Your task to perform on an android device: Open settings on Google Maps Image 0: 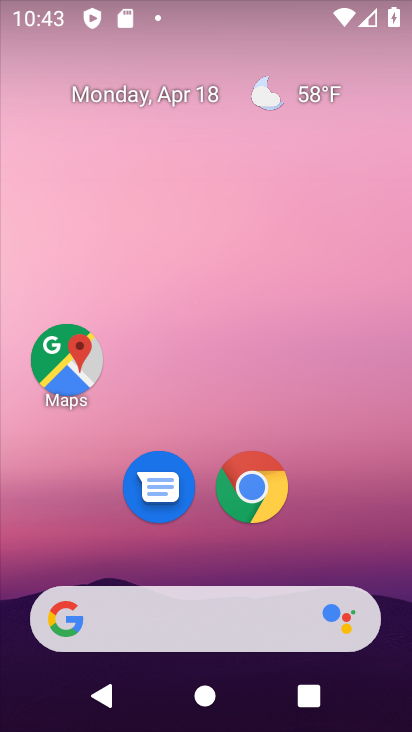
Step 0: drag from (344, 527) to (283, 434)
Your task to perform on an android device: Open settings on Google Maps Image 1: 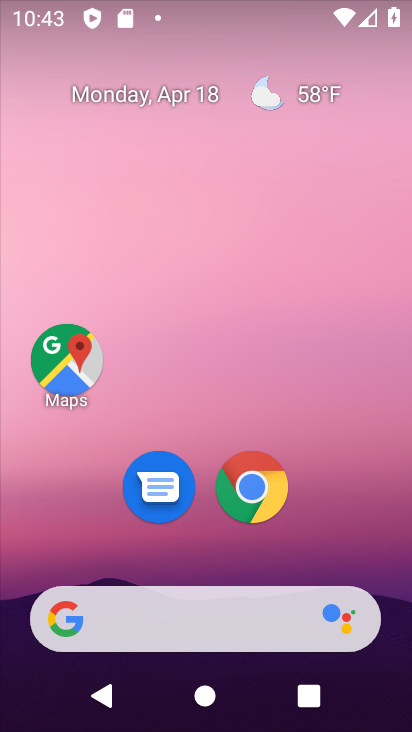
Step 1: click (66, 343)
Your task to perform on an android device: Open settings on Google Maps Image 2: 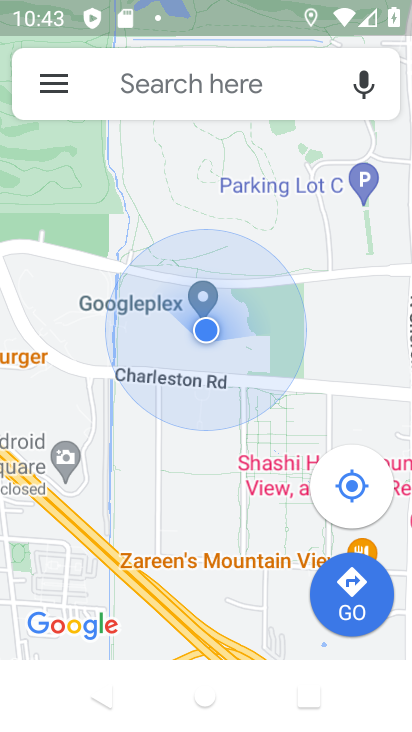
Step 2: click (63, 78)
Your task to perform on an android device: Open settings on Google Maps Image 3: 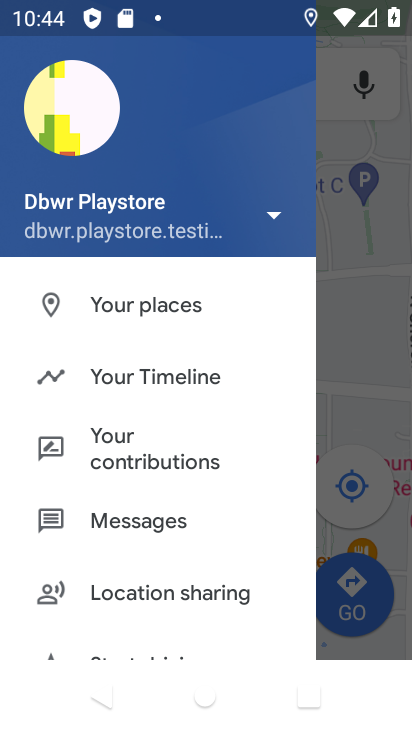
Step 3: drag from (187, 300) to (190, 113)
Your task to perform on an android device: Open settings on Google Maps Image 4: 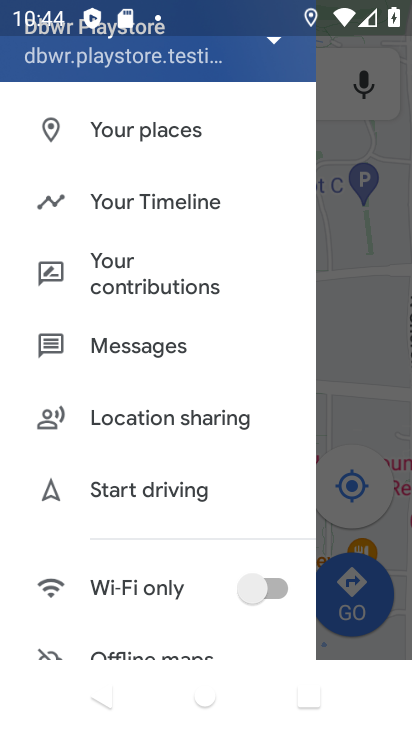
Step 4: drag from (168, 539) to (175, 185)
Your task to perform on an android device: Open settings on Google Maps Image 5: 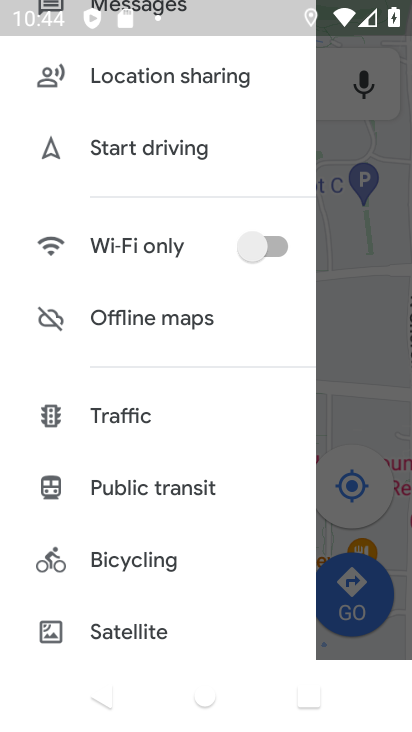
Step 5: drag from (154, 539) to (176, 107)
Your task to perform on an android device: Open settings on Google Maps Image 6: 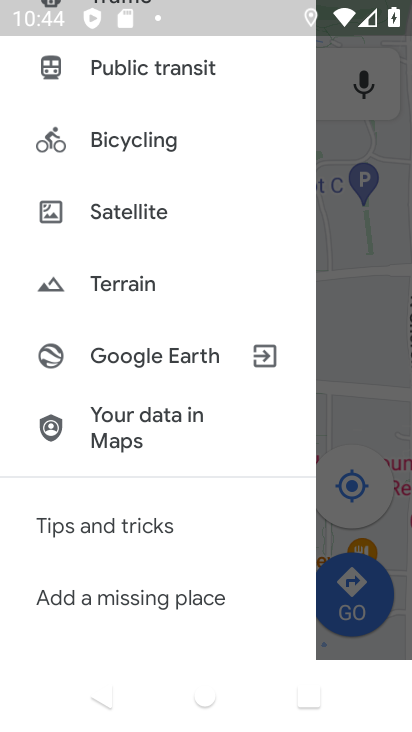
Step 6: drag from (184, 532) to (191, 250)
Your task to perform on an android device: Open settings on Google Maps Image 7: 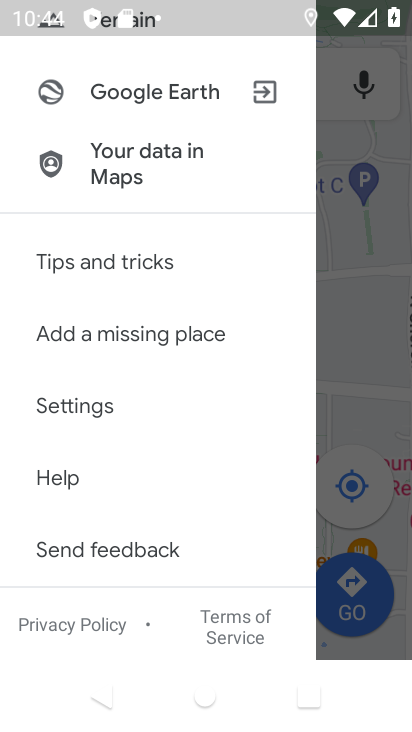
Step 7: click (112, 397)
Your task to perform on an android device: Open settings on Google Maps Image 8: 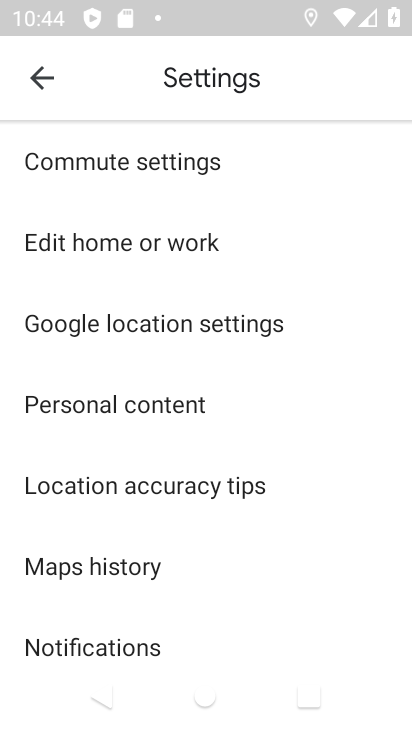
Step 8: task complete